Your task to perform on an android device: Go to wifi settings Image 0: 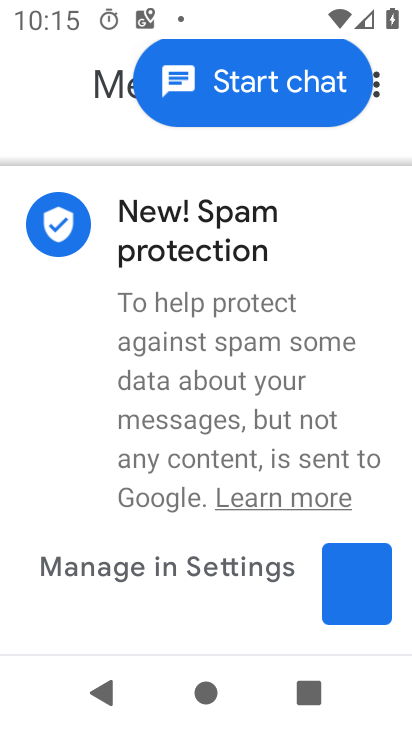
Step 0: press home button
Your task to perform on an android device: Go to wifi settings Image 1: 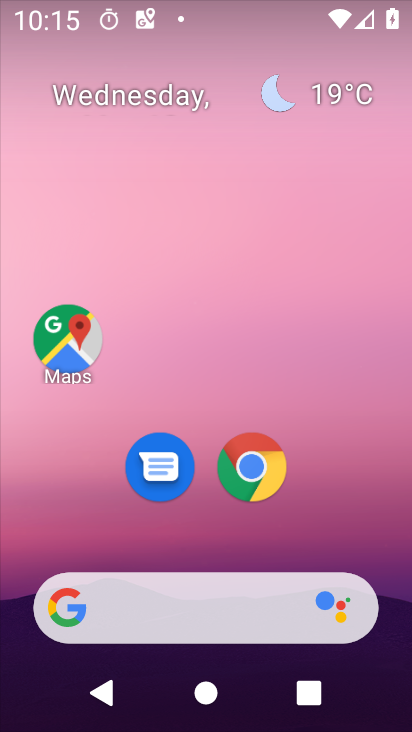
Step 1: drag from (292, 455) to (156, 7)
Your task to perform on an android device: Go to wifi settings Image 2: 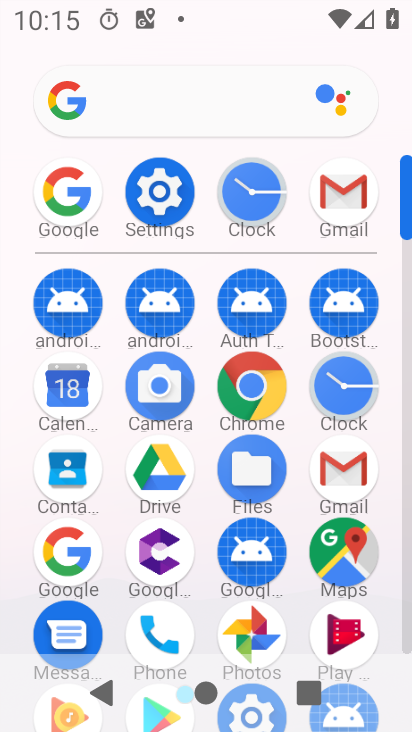
Step 2: click (159, 179)
Your task to perform on an android device: Go to wifi settings Image 3: 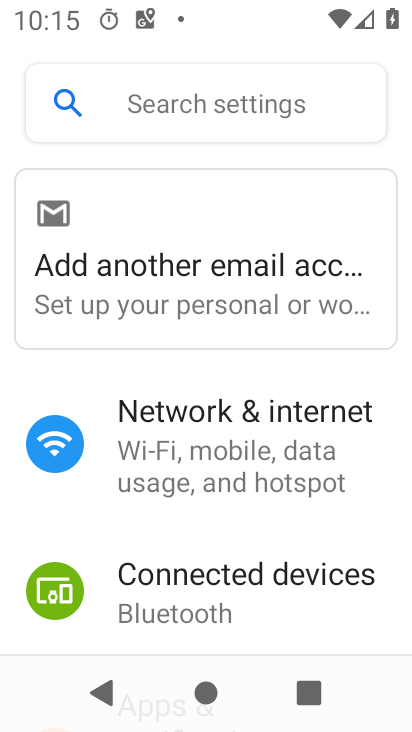
Step 3: click (184, 427)
Your task to perform on an android device: Go to wifi settings Image 4: 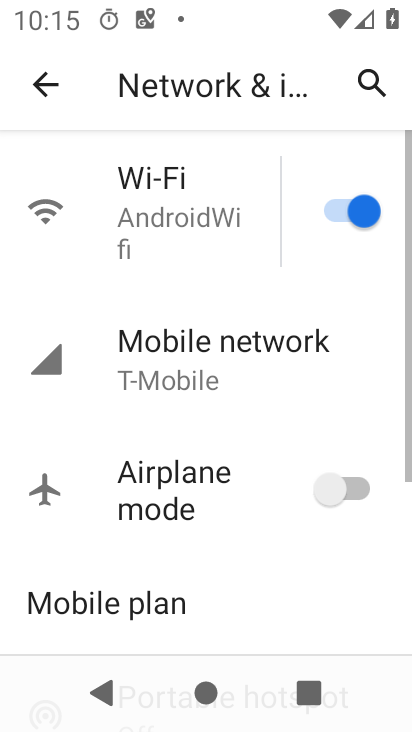
Step 4: click (165, 173)
Your task to perform on an android device: Go to wifi settings Image 5: 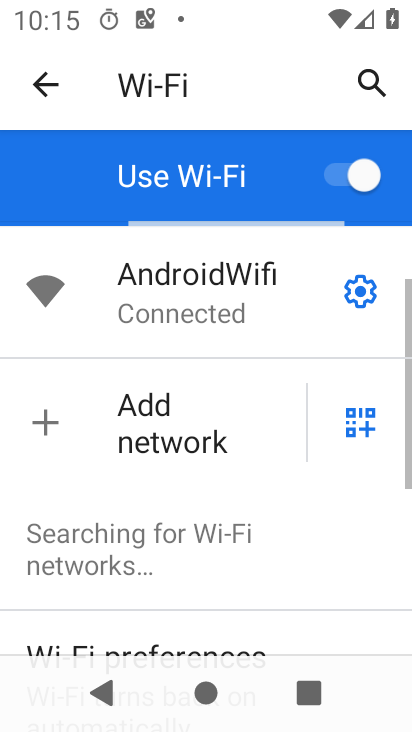
Step 5: task complete